Your task to perform on an android device: Show me recent news Image 0: 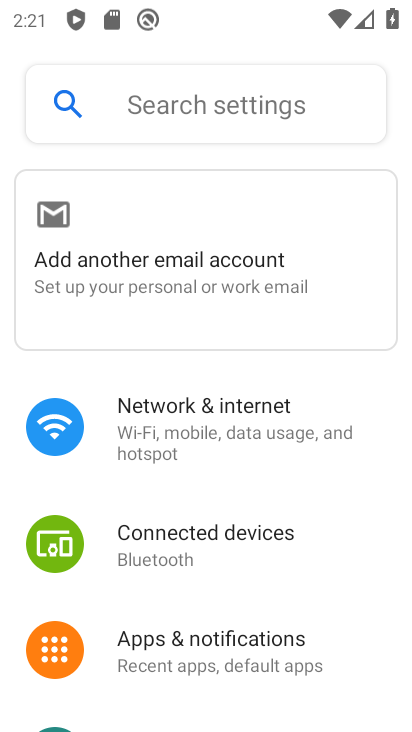
Step 0: press home button
Your task to perform on an android device: Show me recent news Image 1: 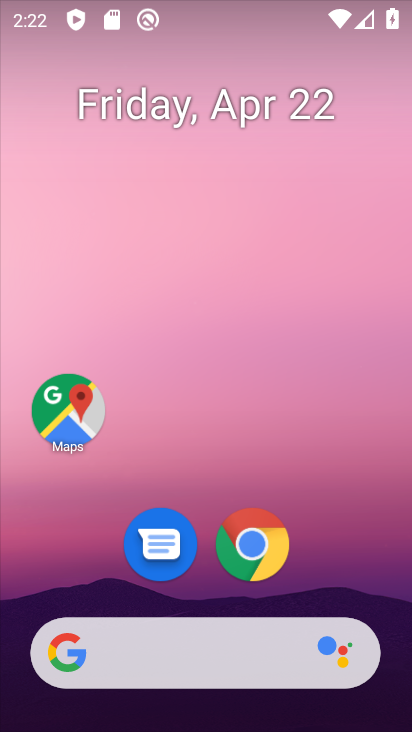
Step 1: task complete